Your task to perform on an android device: Search for Italian restaurants on Maps Image 0: 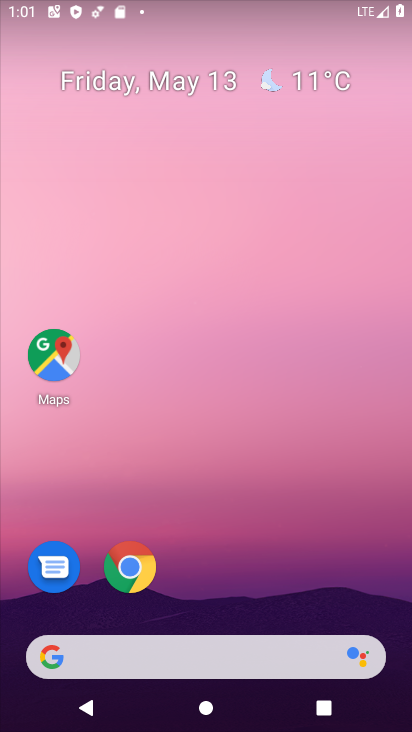
Step 0: click (70, 364)
Your task to perform on an android device: Search for Italian restaurants on Maps Image 1: 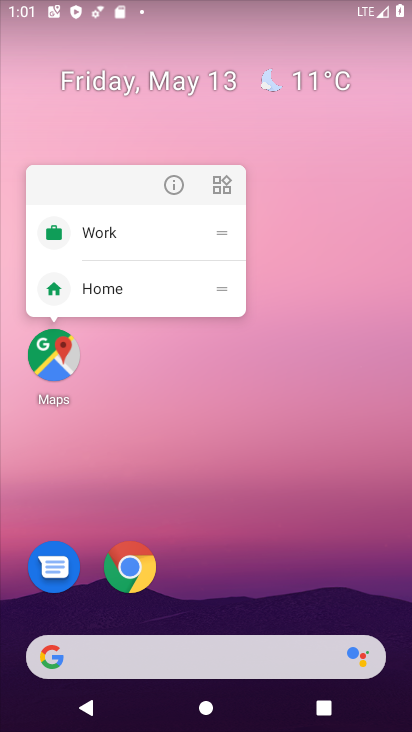
Step 1: click (70, 364)
Your task to perform on an android device: Search for Italian restaurants on Maps Image 2: 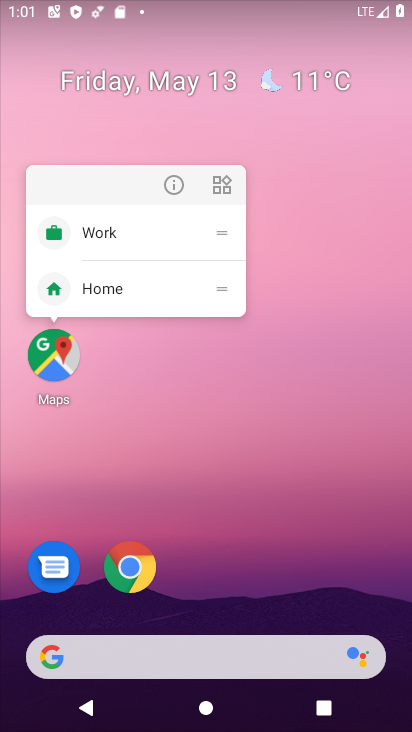
Step 2: click (63, 363)
Your task to perform on an android device: Search for Italian restaurants on Maps Image 3: 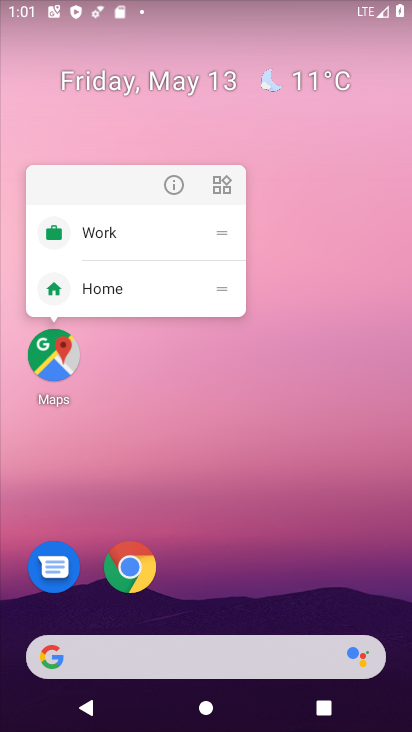
Step 3: click (50, 368)
Your task to perform on an android device: Search for Italian restaurants on Maps Image 4: 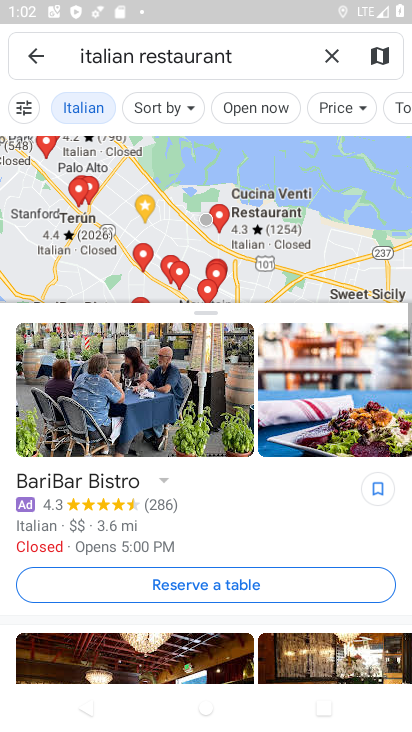
Step 4: task complete